Your task to perform on an android device: open chrome and create a bookmark for the current page Image 0: 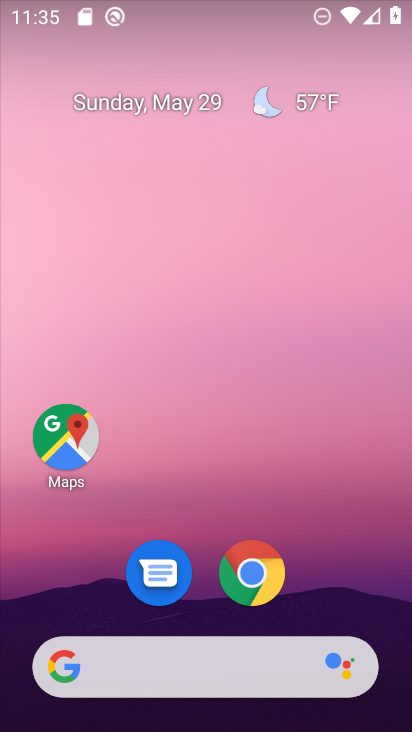
Step 0: drag from (242, 622) to (333, 21)
Your task to perform on an android device: open chrome and create a bookmark for the current page Image 1: 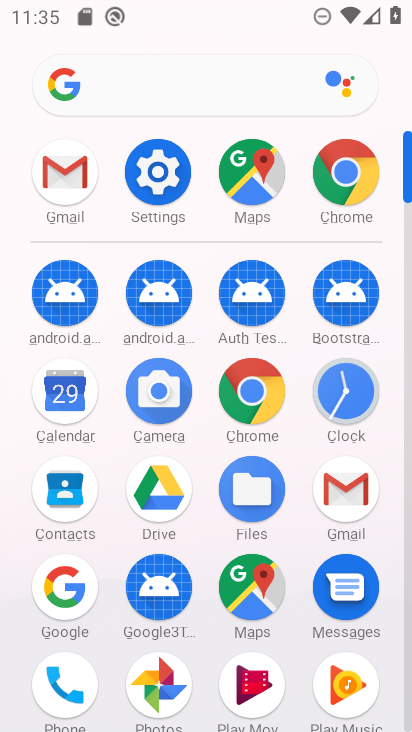
Step 1: click (266, 393)
Your task to perform on an android device: open chrome and create a bookmark for the current page Image 2: 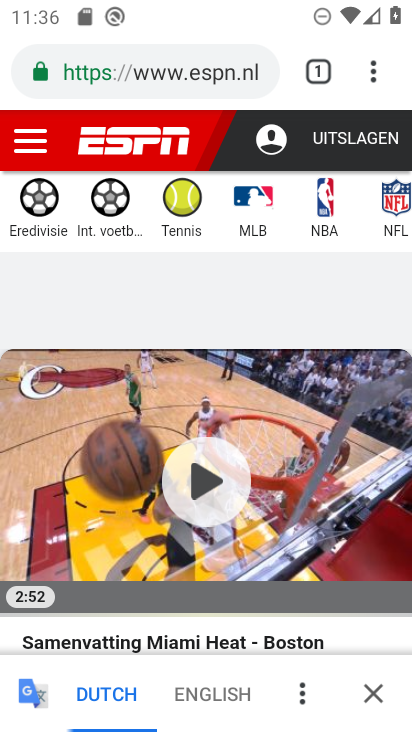
Step 2: task complete